Your task to perform on an android device: toggle airplane mode Image 0: 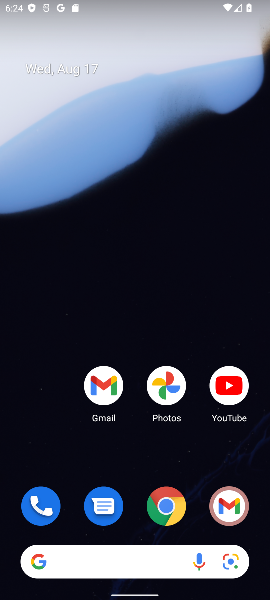
Step 0: press home button
Your task to perform on an android device: toggle airplane mode Image 1: 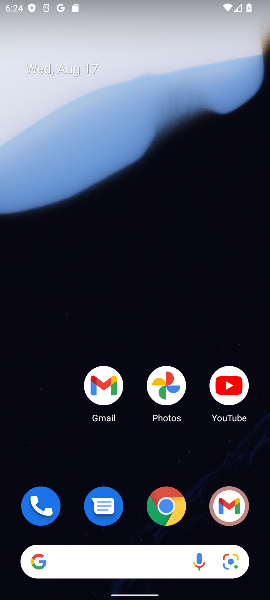
Step 1: drag from (158, 456) to (213, 96)
Your task to perform on an android device: toggle airplane mode Image 2: 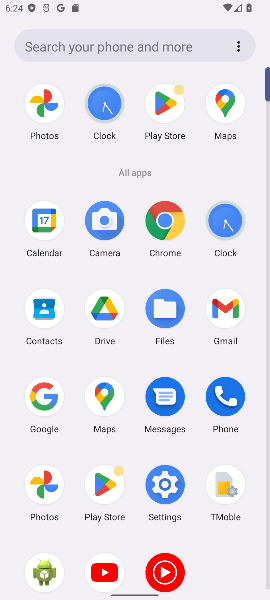
Step 2: click (172, 481)
Your task to perform on an android device: toggle airplane mode Image 3: 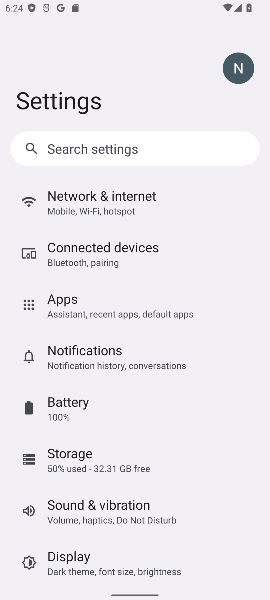
Step 3: click (130, 202)
Your task to perform on an android device: toggle airplane mode Image 4: 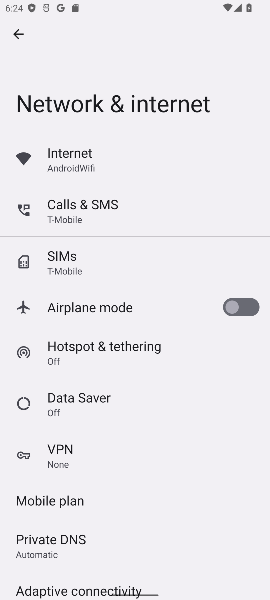
Step 4: click (249, 305)
Your task to perform on an android device: toggle airplane mode Image 5: 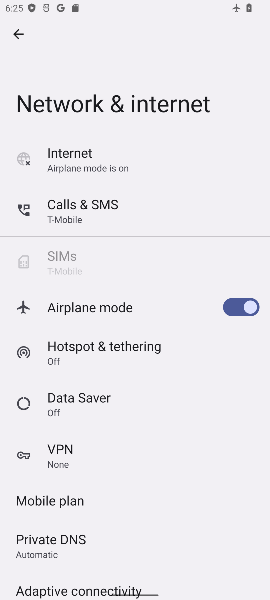
Step 5: task complete